Your task to perform on an android device: Do I have any events today? Image 0: 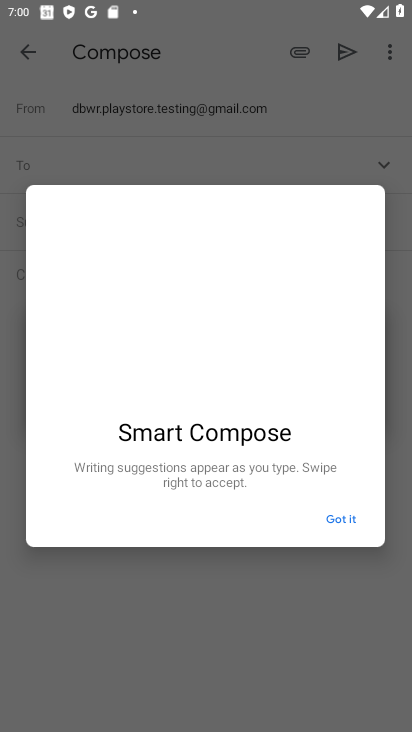
Step 0: press home button
Your task to perform on an android device: Do I have any events today? Image 1: 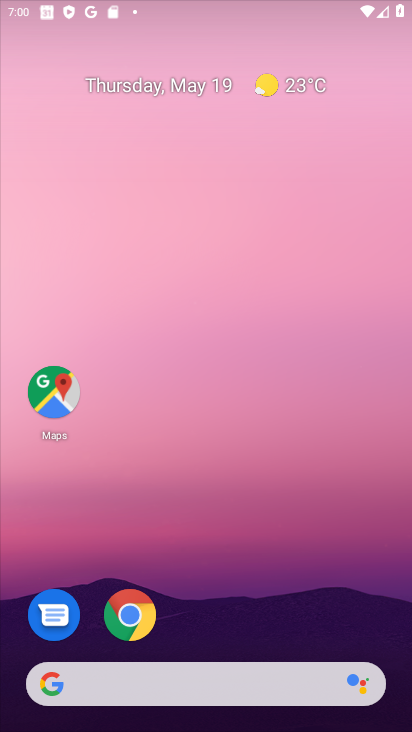
Step 1: drag from (350, 625) to (258, 59)
Your task to perform on an android device: Do I have any events today? Image 2: 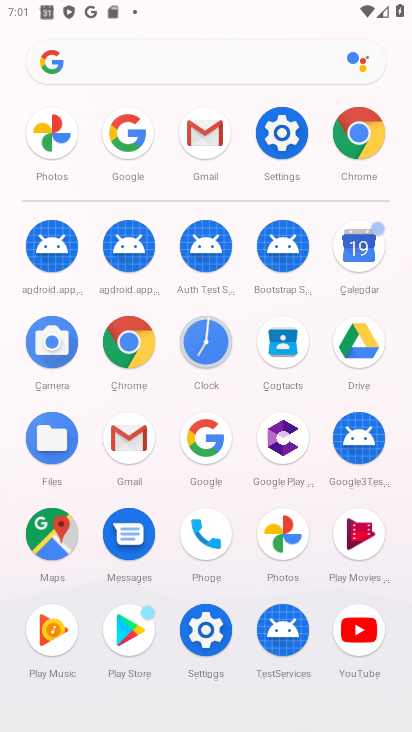
Step 2: click (338, 262)
Your task to perform on an android device: Do I have any events today? Image 3: 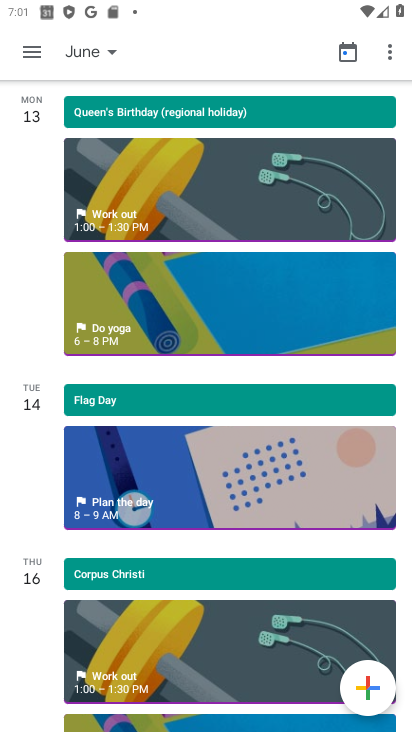
Step 3: click (75, 60)
Your task to perform on an android device: Do I have any events today? Image 4: 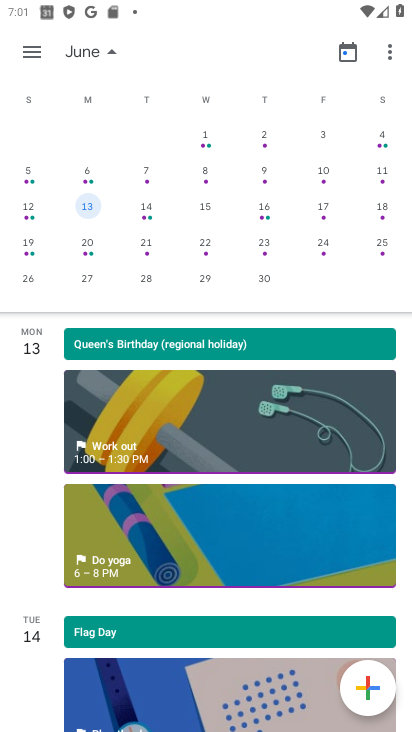
Step 4: drag from (36, 172) to (375, 183)
Your task to perform on an android device: Do I have any events today? Image 5: 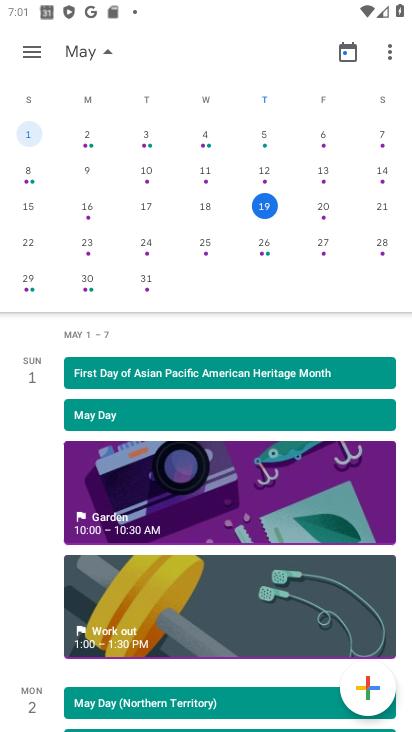
Step 5: drag from (65, 165) to (367, 168)
Your task to perform on an android device: Do I have any events today? Image 6: 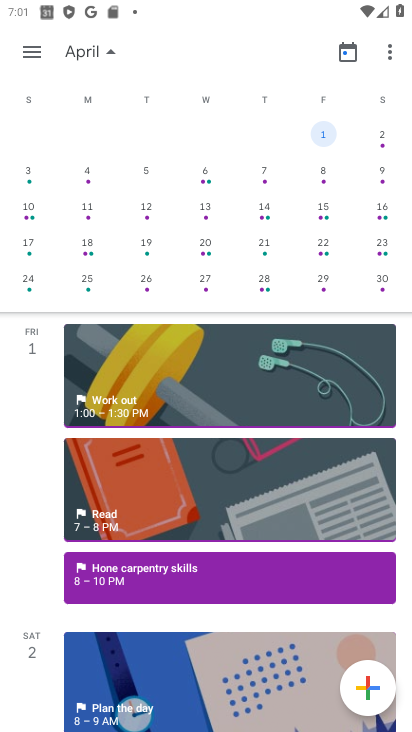
Step 6: drag from (367, 168) to (63, 194)
Your task to perform on an android device: Do I have any events today? Image 7: 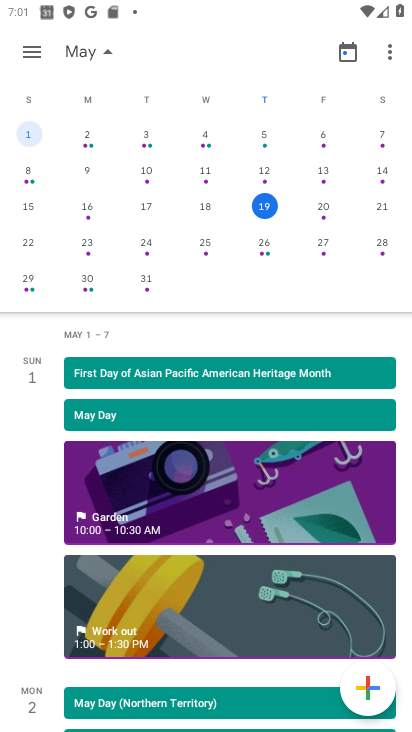
Step 7: click (390, 214)
Your task to perform on an android device: Do I have any events today? Image 8: 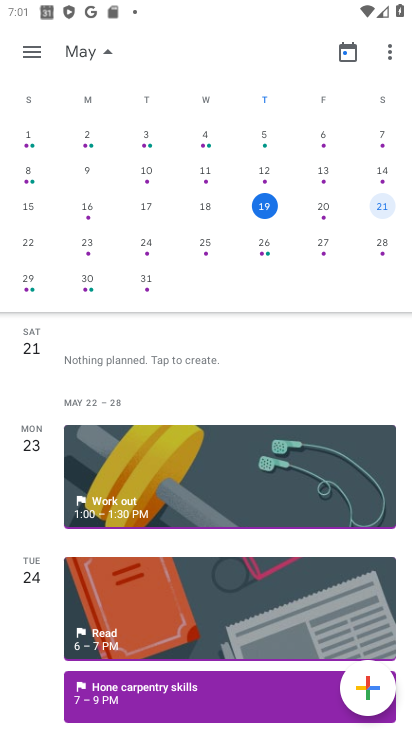
Step 8: click (386, 206)
Your task to perform on an android device: Do I have any events today? Image 9: 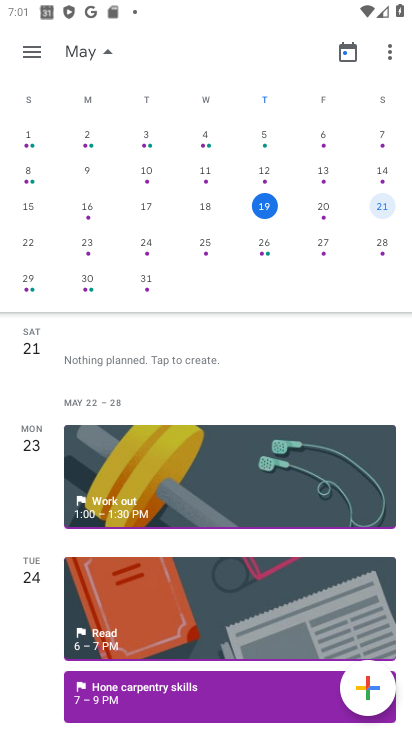
Step 9: task complete